Your task to perform on an android device: Do I have any events today? Image 0: 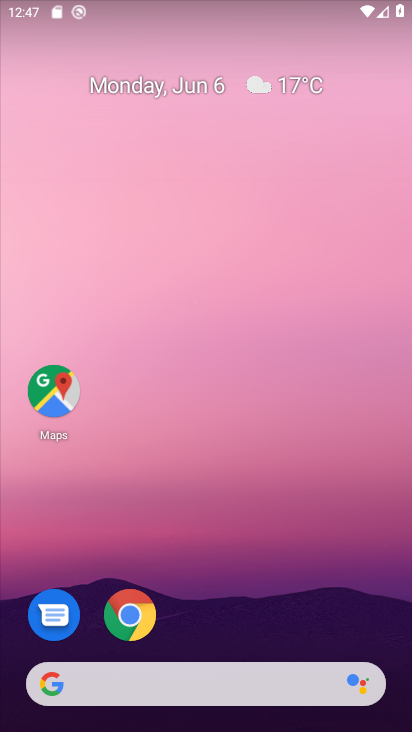
Step 0: drag from (253, 617) to (222, 65)
Your task to perform on an android device: Do I have any events today? Image 1: 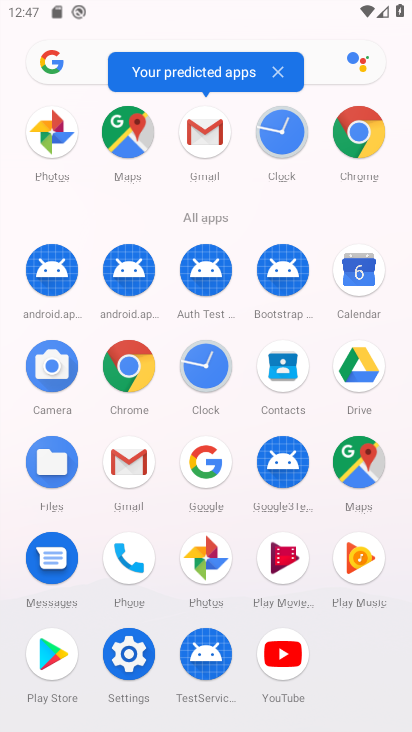
Step 1: click (361, 276)
Your task to perform on an android device: Do I have any events today? Image 2: 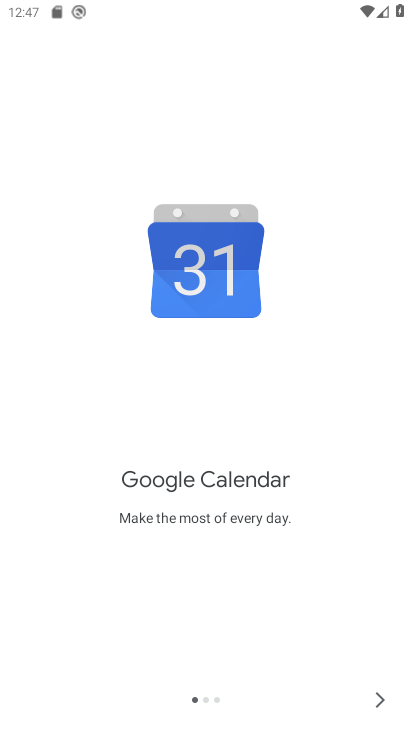
Step 2: click (373, 707)
Your task to perform on an android device: Do I have any events today? Image 3: 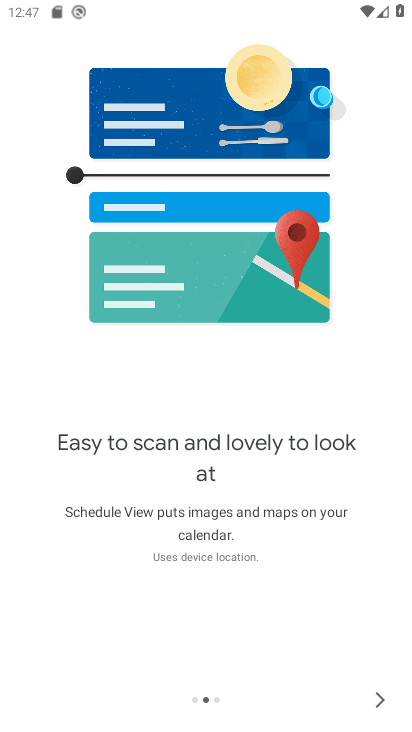
Step 3: click (373, 707)
Your task to perform on an android device: Do I have any events today? Image 4: 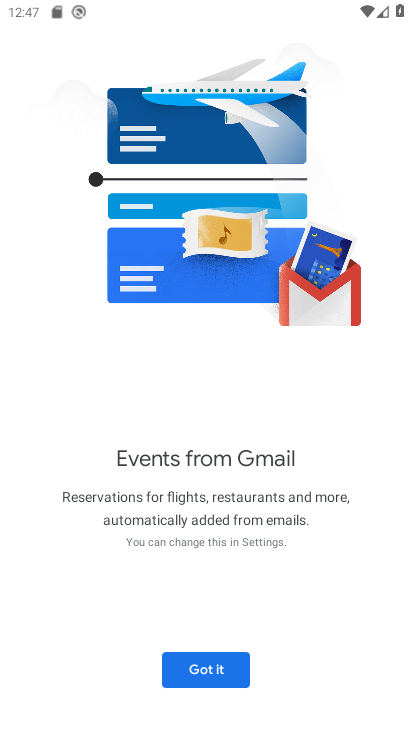
Step 4: click (374, 706)
Your task to perform on an android device: Do I have any events today? Image 5: 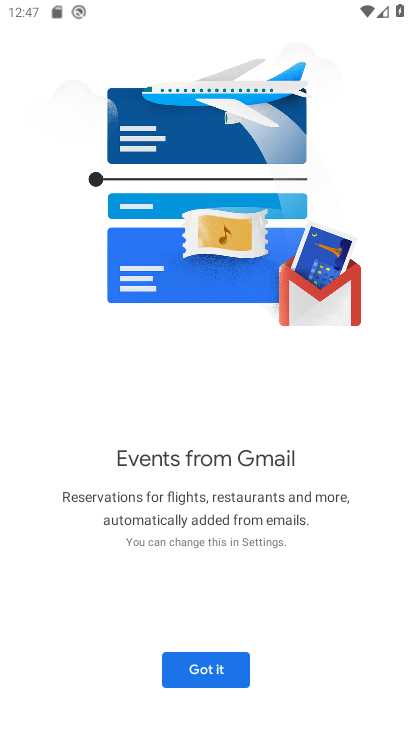
Step 5: click (196, 669)
Your task to perform on an android device: Do I have any events today? Image 6: 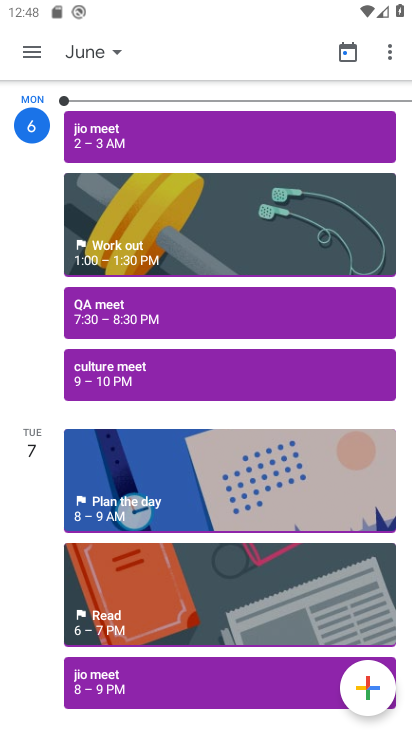
Step 6: task complete